Your task to perform on an android device: Open notification settings Image 0: 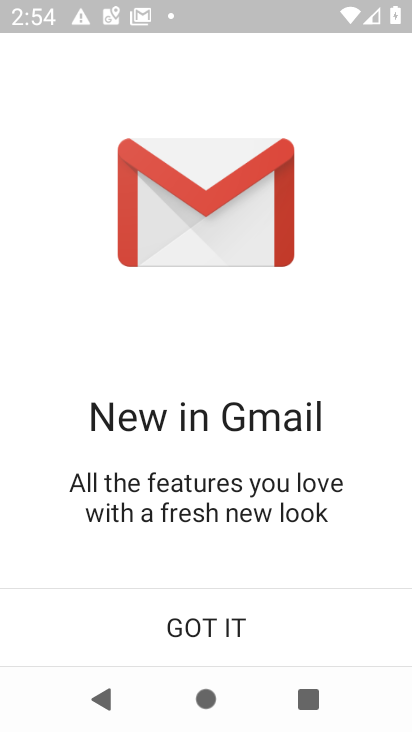
Step 0: press home button
Your task to perform on an android device: Open notification settings Image 1: 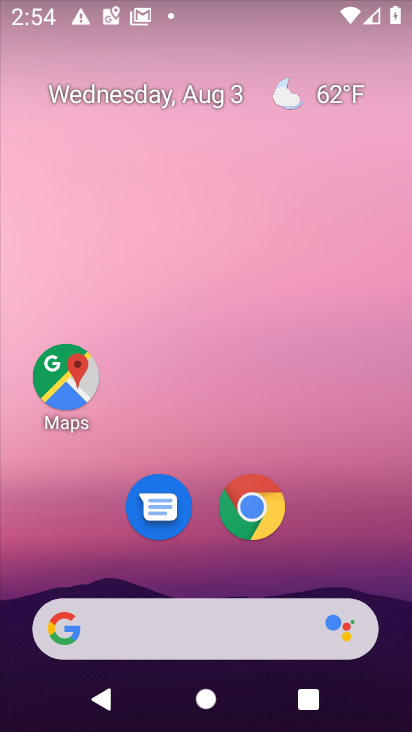
Step 1: drag from (316, 584) to (115, 45)
Your task to perform on an android device: Open notification settings Image 2: 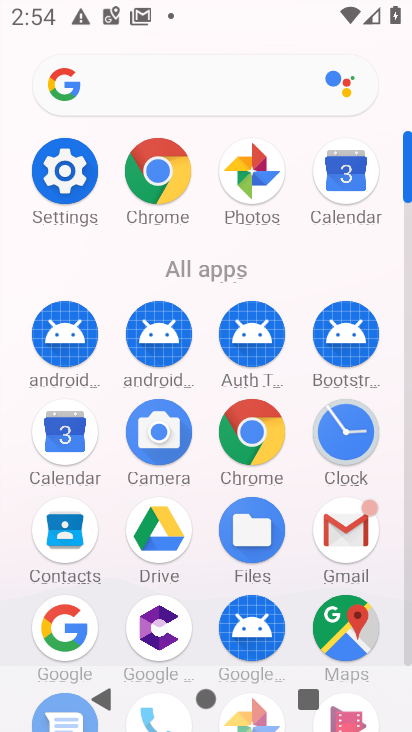
Step 2: click (59, 195)
Your task to perform on an android device: Open notification settings Image 3: 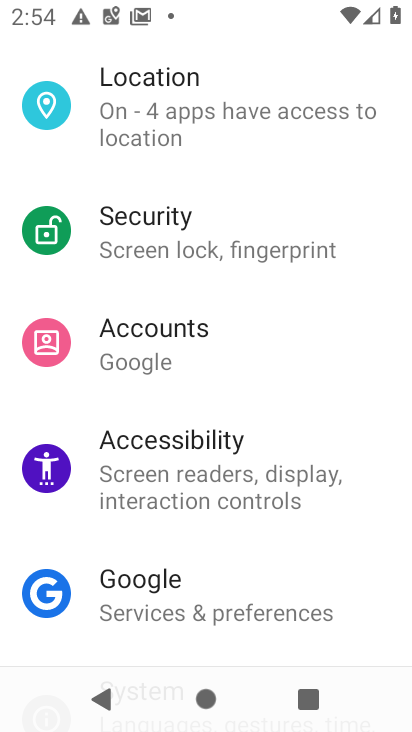
Step 3: drag from (238, 145) to (305, 576)
Your task to perform on an android device: Open notification settings Image 4: 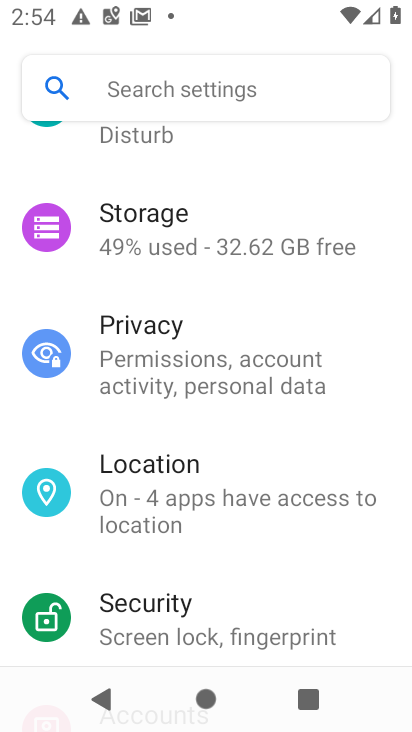
Step 4: drag from (245, 204) to (301, 627)
Your task to perform on an android device: Open notification settings Image 5: 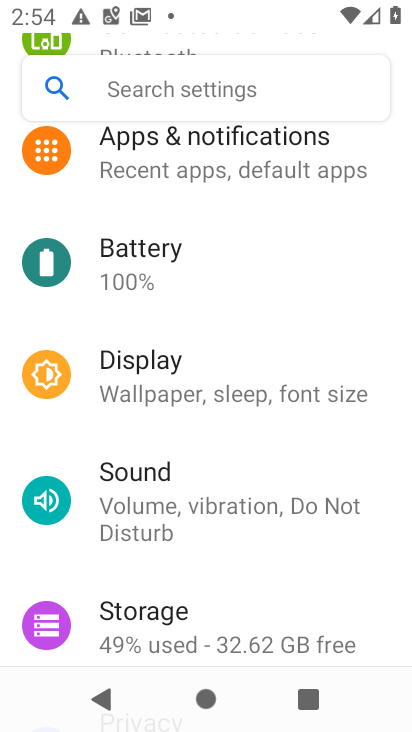
Step 5: click (250, 154)
Your task to perform on an android device: Open notification settings Image 6: 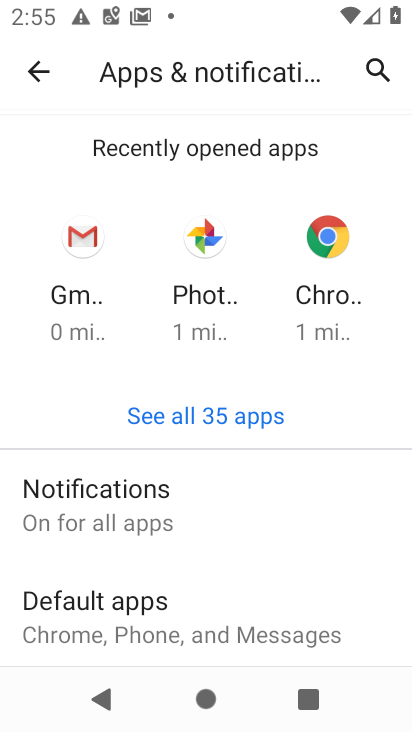
Step 6: task complete